Your task to perform on an android device: Open location settings Image 0: 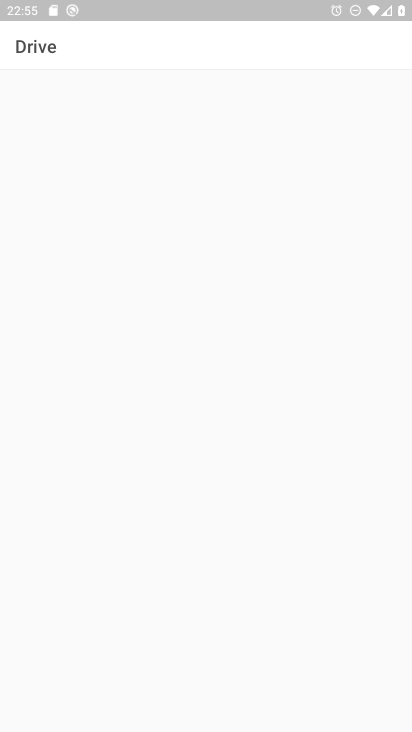
Step 0: press home button
Your task to perform on an android device: Open location settings Image 1: 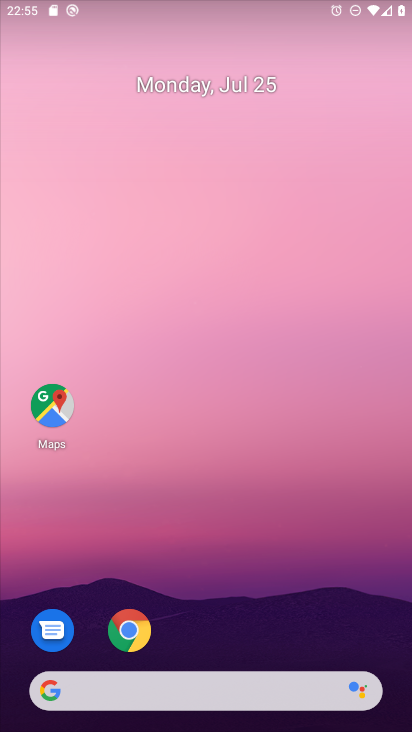
Step 1: drag from (342, 624) to (267, 121)
Your task to perform on an android device: Open location settings Image 2: 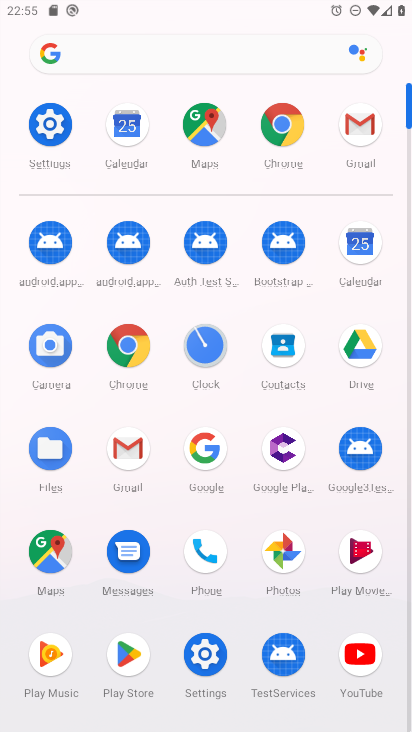
Step 2: click (48, 127)
Your task to perform on an android device: Open location settings Image 3: 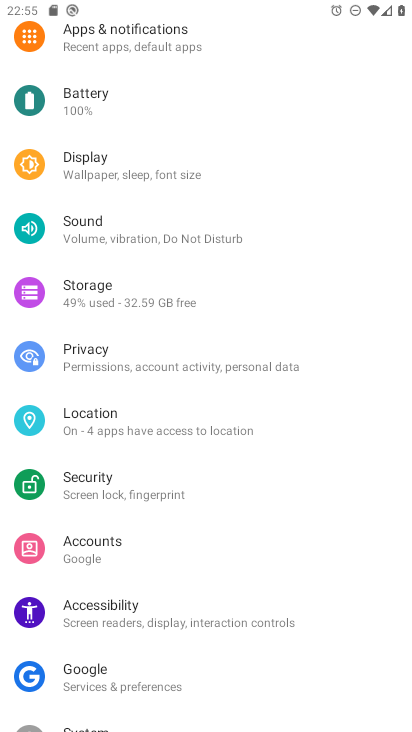
Step 3: click (189, 417)
Your task to perform on an android device: Open location settings Image 4: 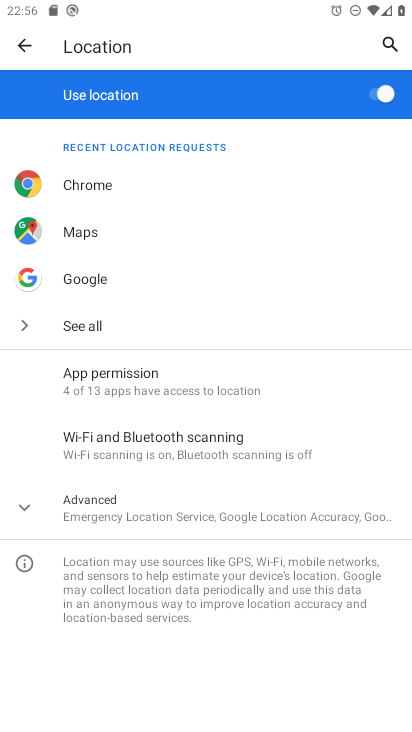
Step 4: task complete